Your task to perform on an android device: Go to privacy settings Image 0: 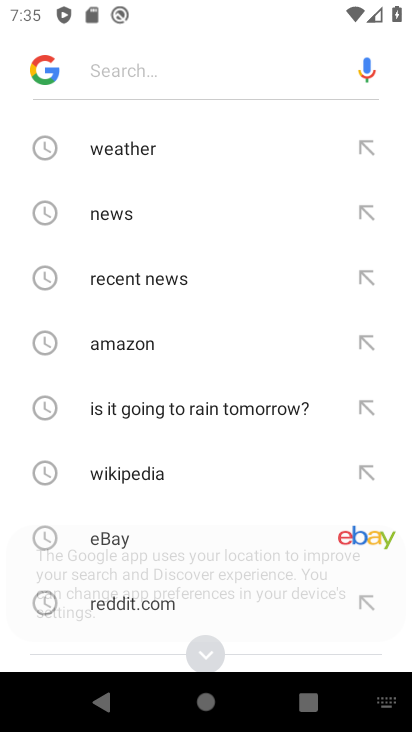
Step 0: press home button
Your task to perform on an android device: Go to privacy settings Image 1: 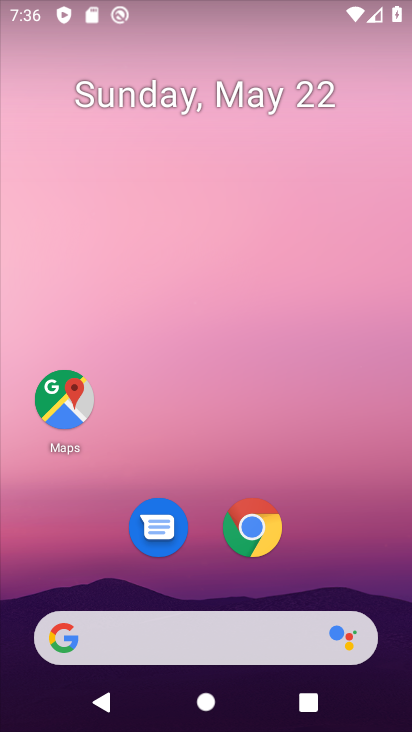
Step 1: drag from (204, 554) to (196, 17)
Your task to perform on an android device: Go to privacy settings Image 2: 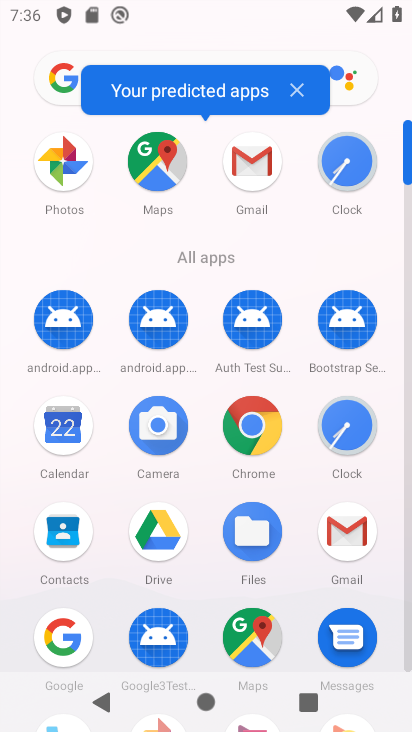
Step 2: drag from (212, 552) to (204, 87)
Your task to perform on an android device: Go to privacy settings Image 3: 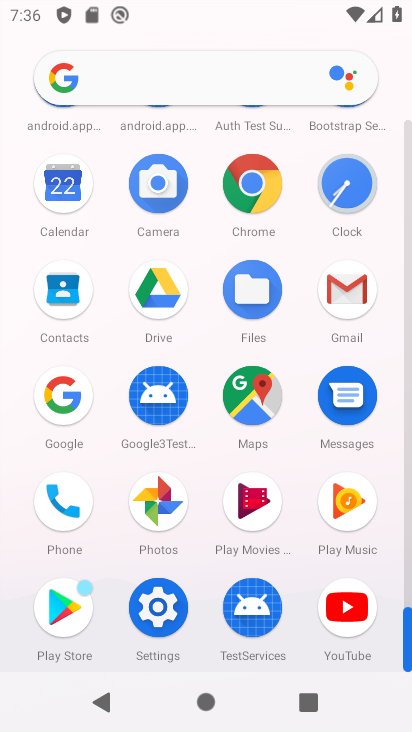
Step 3: click (160, 608)
Your task to perform on an android device: Go to privacy settings Image 4: 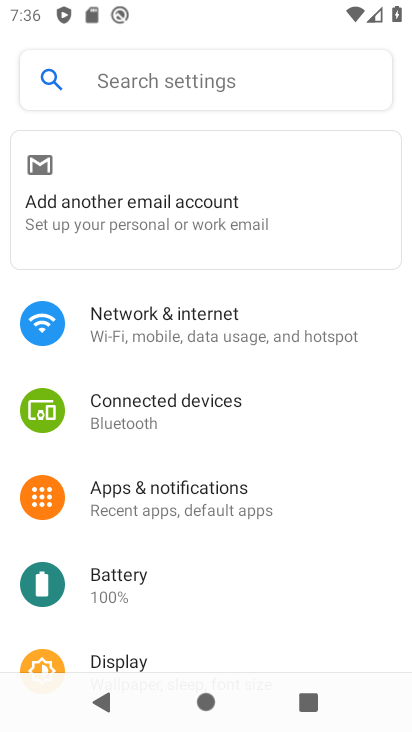
Step 4: drag from (202, 649) to (188, 84)
Your task to perform on an android device: Go to privacy settings Image 5: 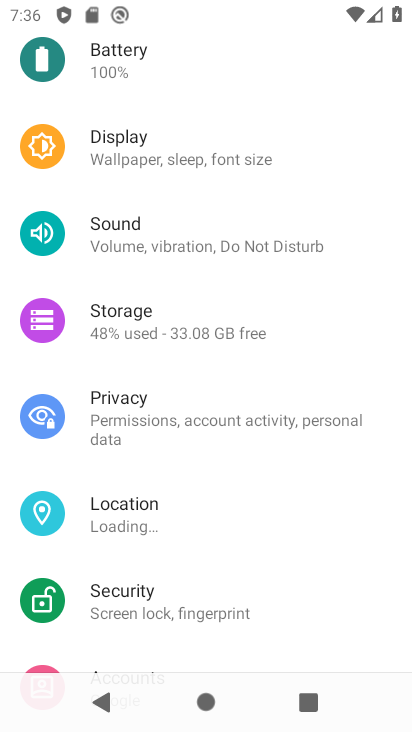
Step 5: click (159, 414)
Your task to perform on an android device: Go to privacy settings Image 6: 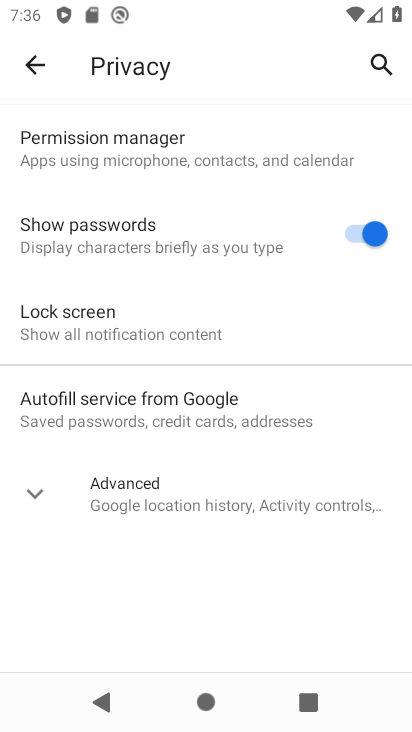
Step 6: click (44, 464)
Your task to perform on an android device: Go to privacy settings Image 7: 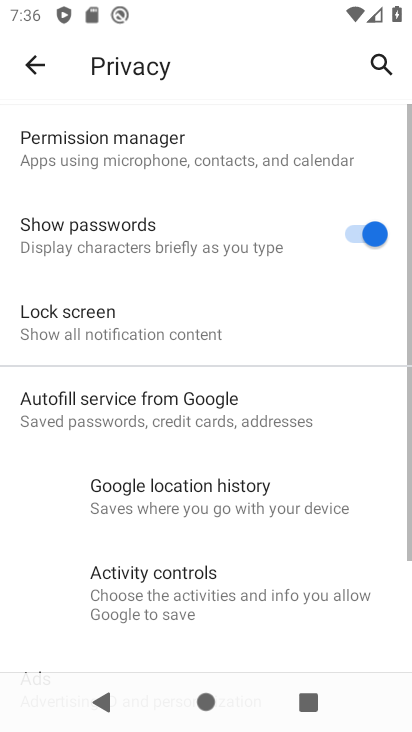
Step 7: task complete